Your task to perform on an android device: add a contact in the contacts app Image 0: 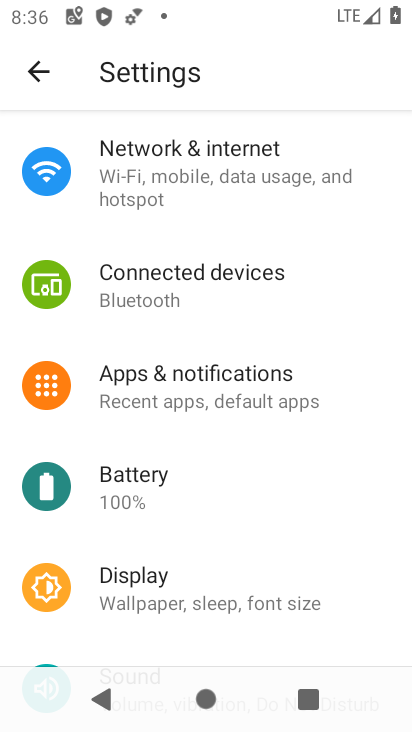
Step 0: press back button
Your task to perform on an android device: add a contact in the contacts app Image 1: 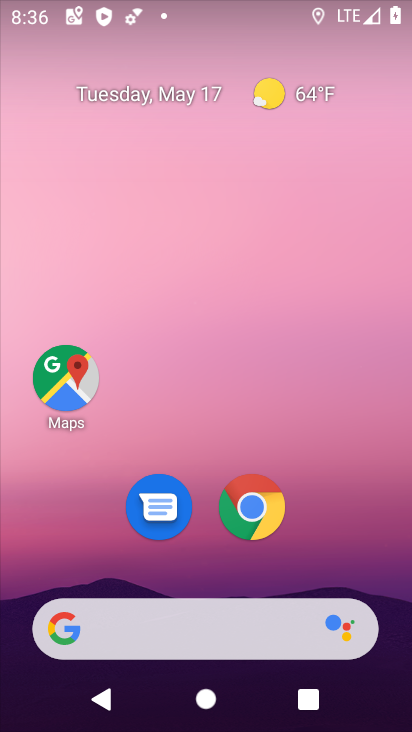
Step 1: drag from (339, 541) to (260, 52)
Your task to perform on an android device: add a contact in the contacts app Image 2: 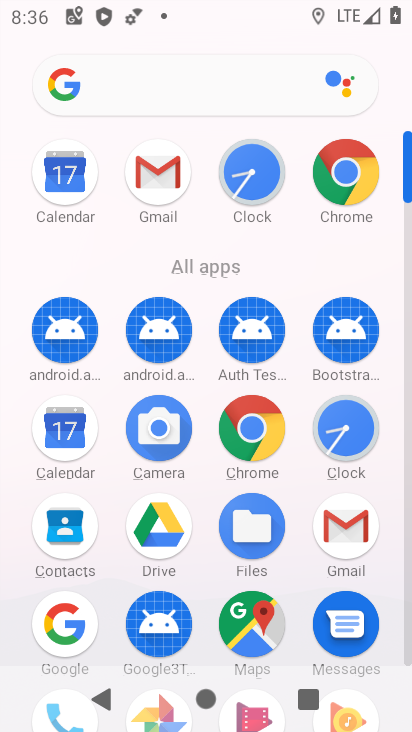
Step 2: click (67, 527)
Your task to perform on an android device: add a contact in the contacts app Image 3: 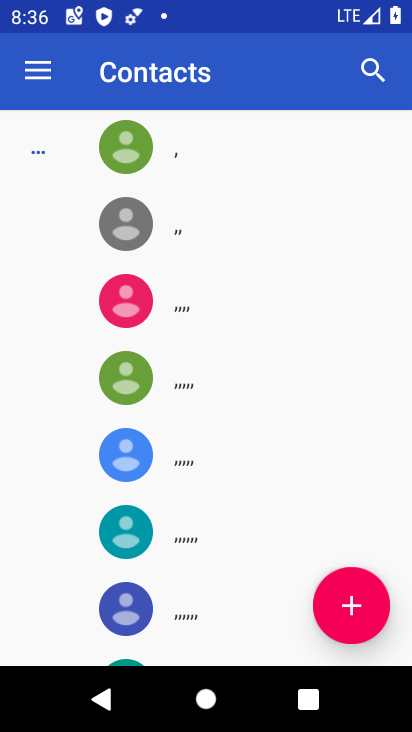
Step 3: click (351, 604)
Your task to perform on an android device: add a contact in the contacts app Image 4: 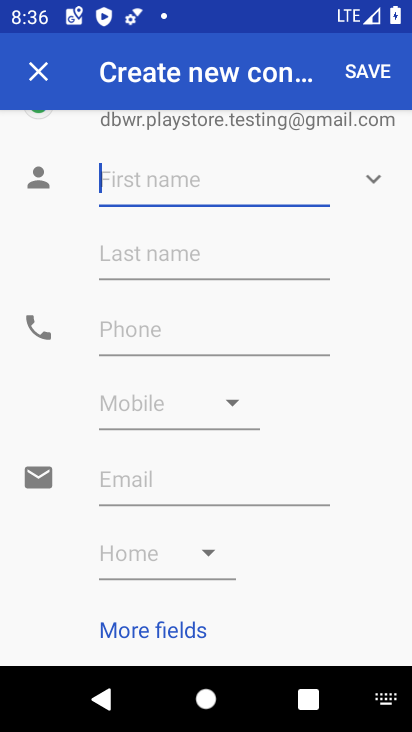
Step 4: click (197, 178)
Your task to perform on an android device: add a contact in the contacts app Image 5: 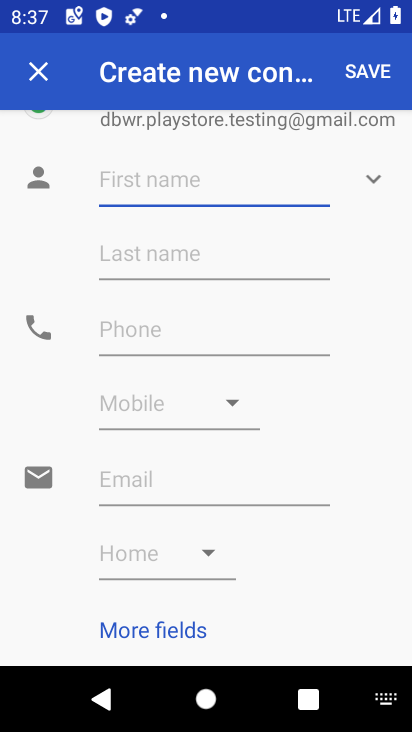
Step 5: type "Chandrachur"
Your task to perform on an android device: add a contact in the contacts app Image 6: 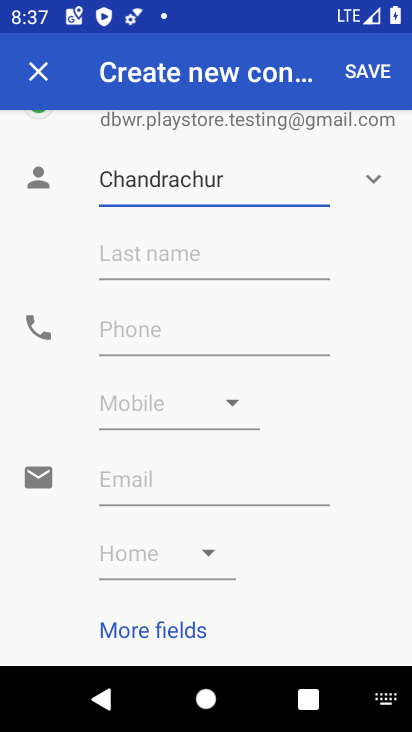
Step 6: click (137, 254)
Your task to perform on an android device: add a contact in the contacts app Image 7: 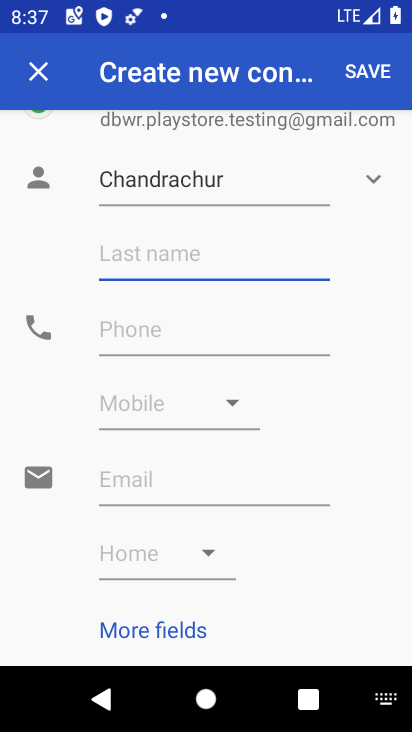
Step 7: type "Singh"
Your task to perform on an android device: add a contact in the contacts app Image 8: 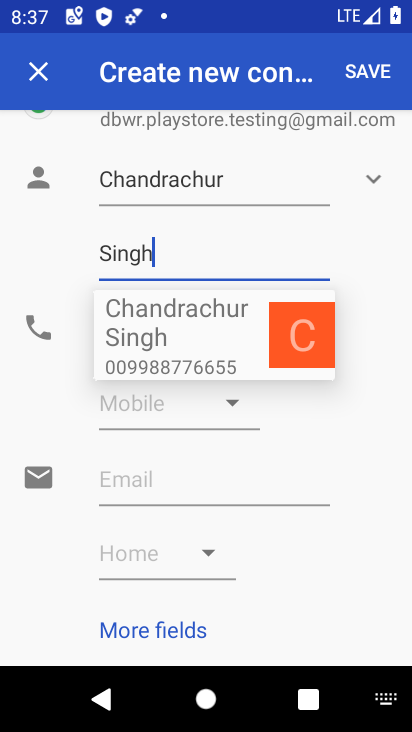
Step 8: click (172, 260)
Your task to perform on an android device: add a contact in the contacts app Image 9: 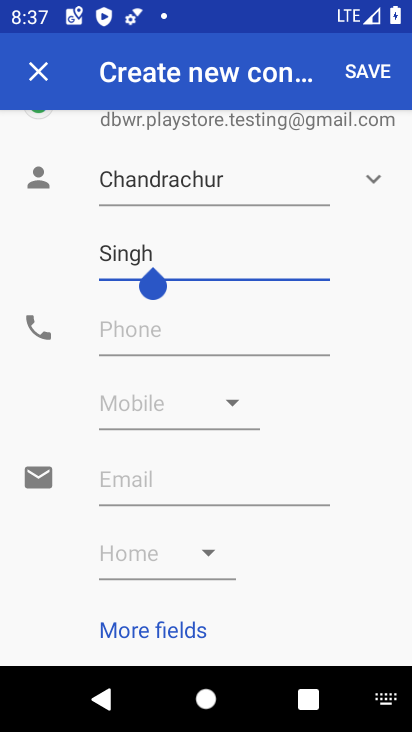
Step 9: click (174, 327)
Your task to perform on an android device: add a contact in the contacts app Image 10: 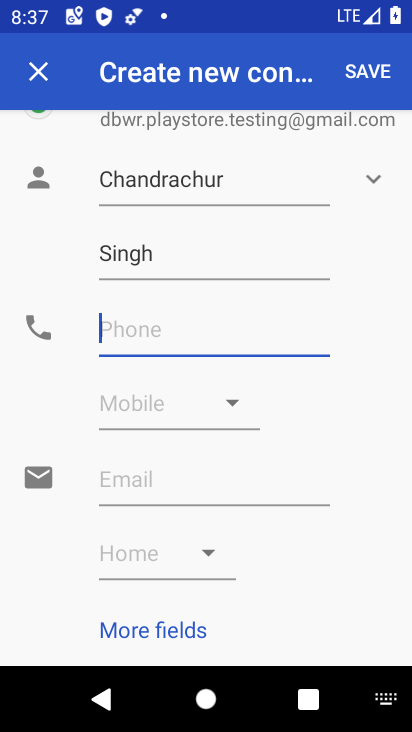
Step 10: type "09988776655"
Your task to perform on an android device: add a contact in the contacts app Image 11: 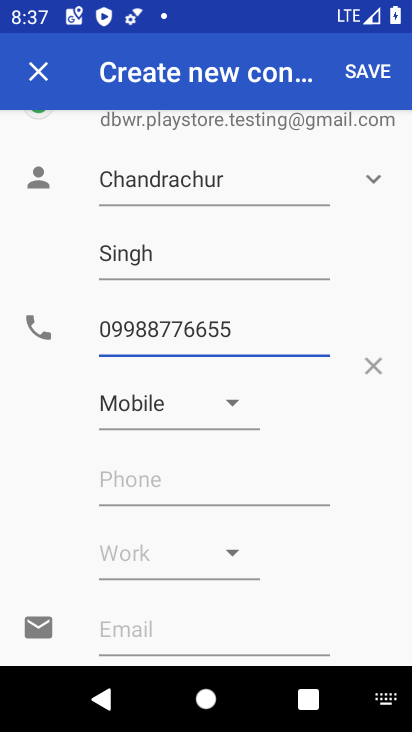
Step 11: click (366, 72)
Your task to perform on an android device: add a contact in the contacts app Image 12: 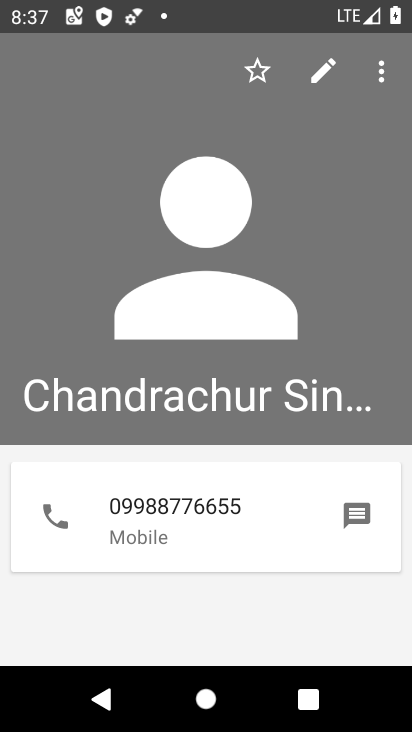
Step 12: task complete